Your task to perform on an android device: Open the map Image 0: 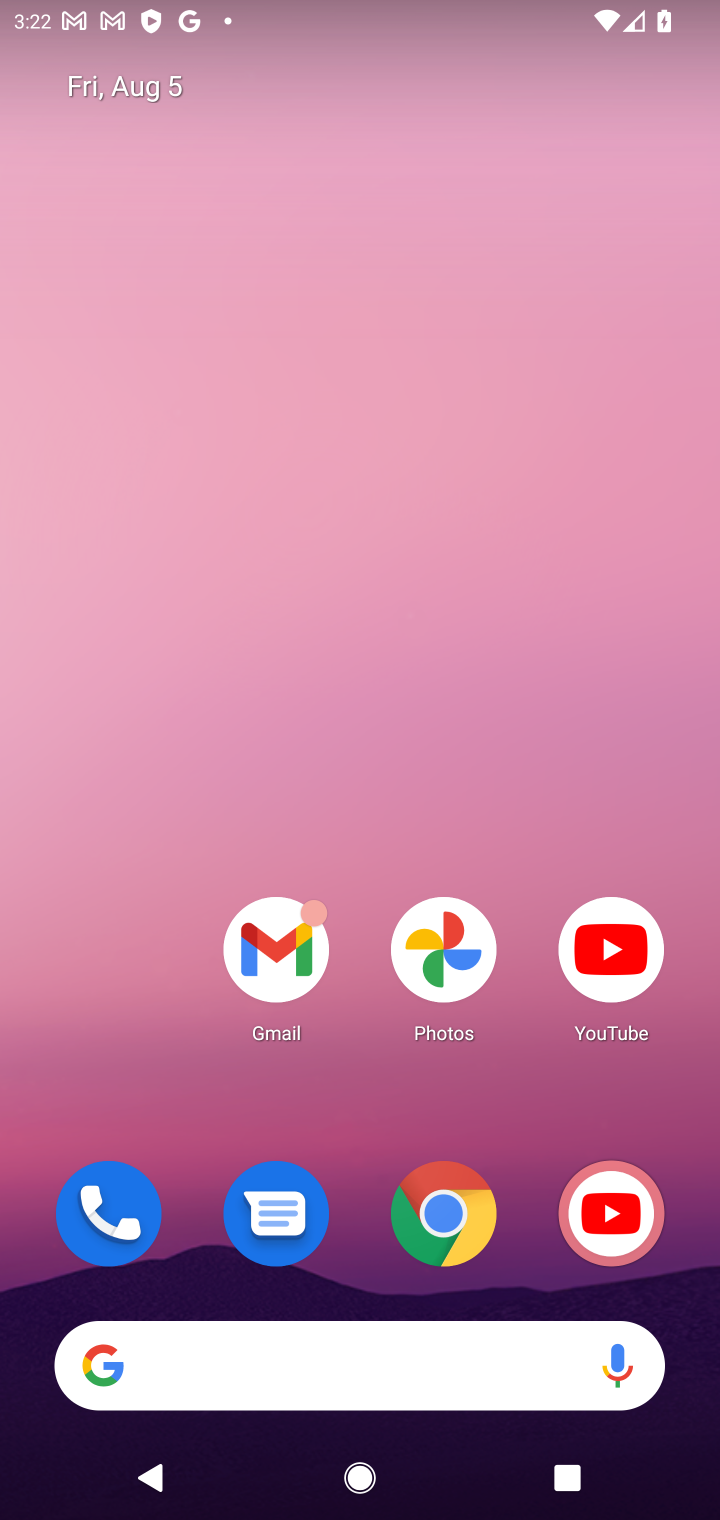
Step 0: drag from (517, 1258) to (537, 30)
Your task to perform on an android device: Open the map Image 1: 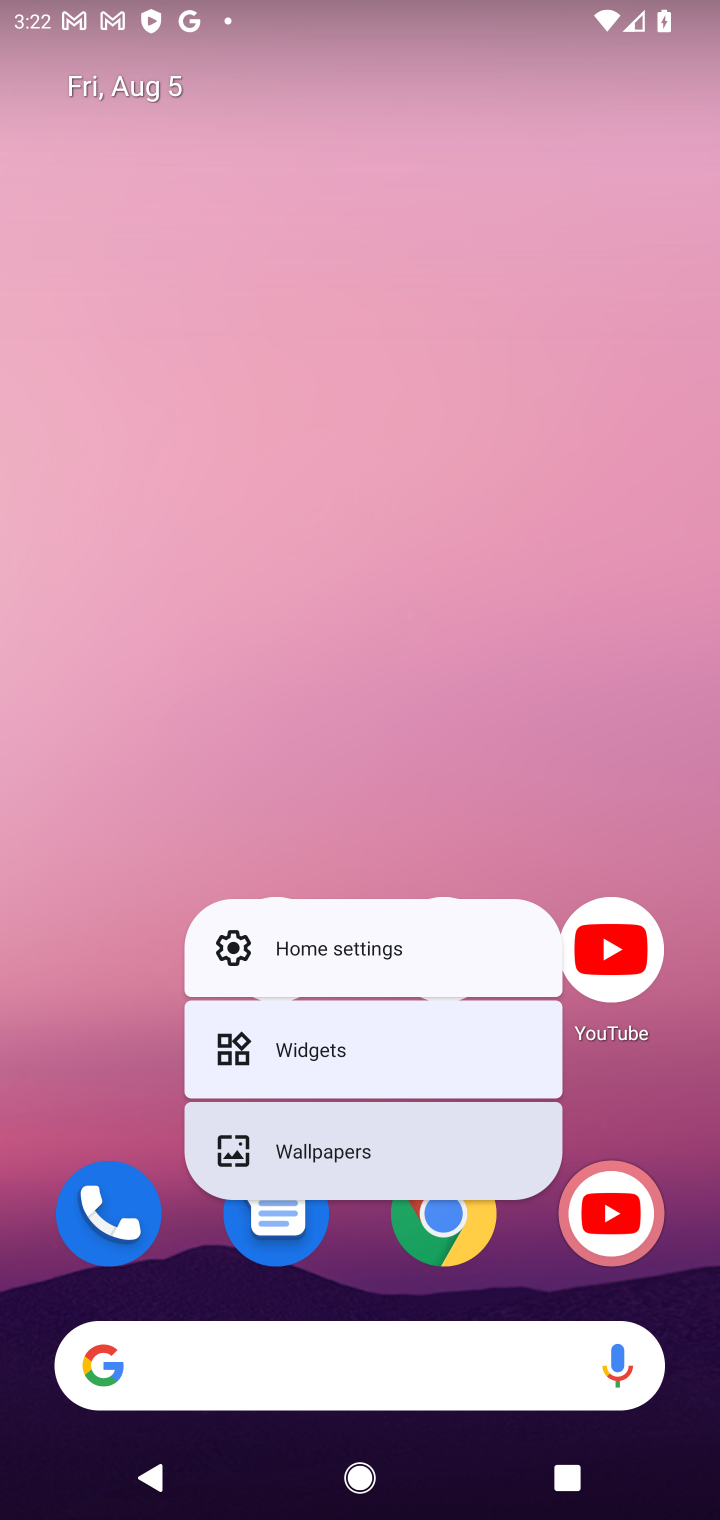
Step 1: click (472, 466)
Your task to perform on an android device: Open the map Image 2: 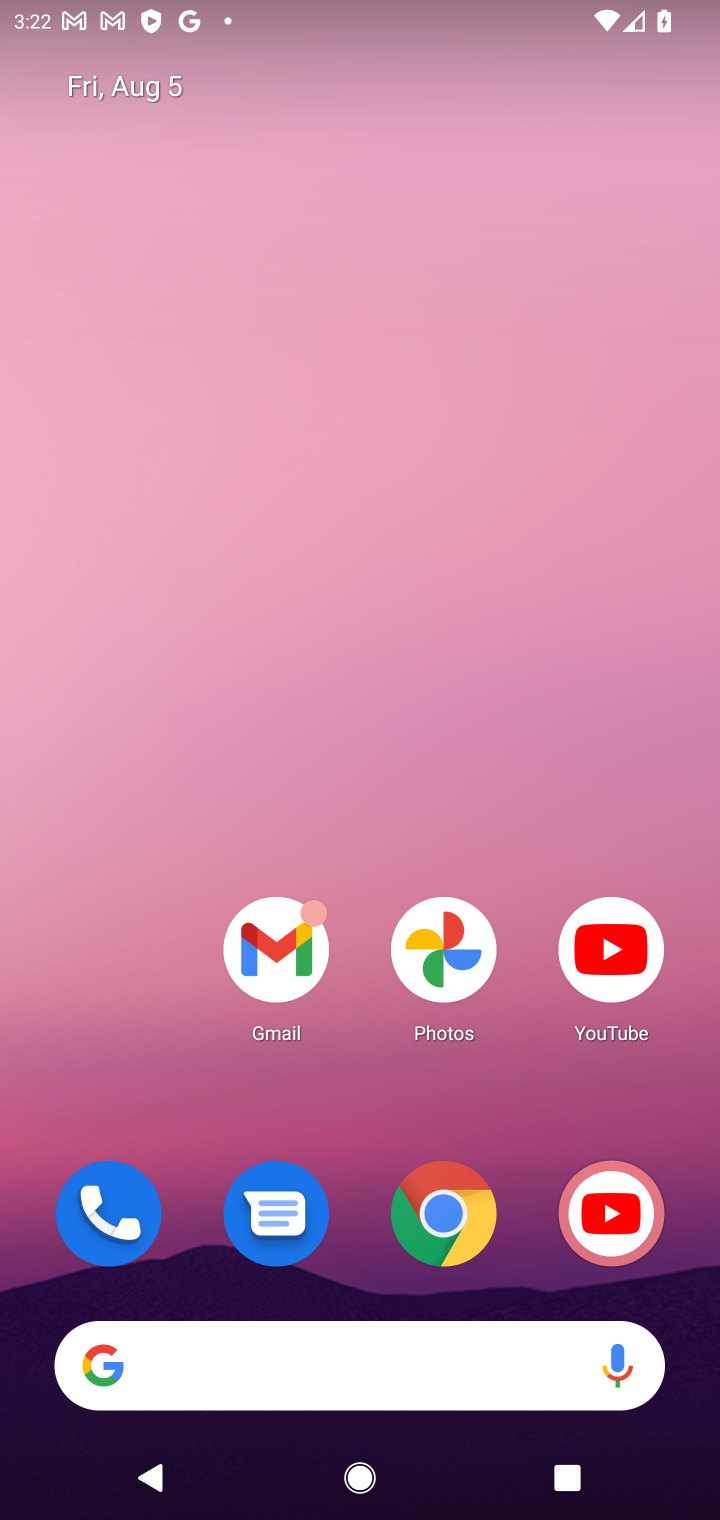
Step 2: drag from (526, 1279) to (499, 311)
Your task to perform on an android device: Open the map Image 3: 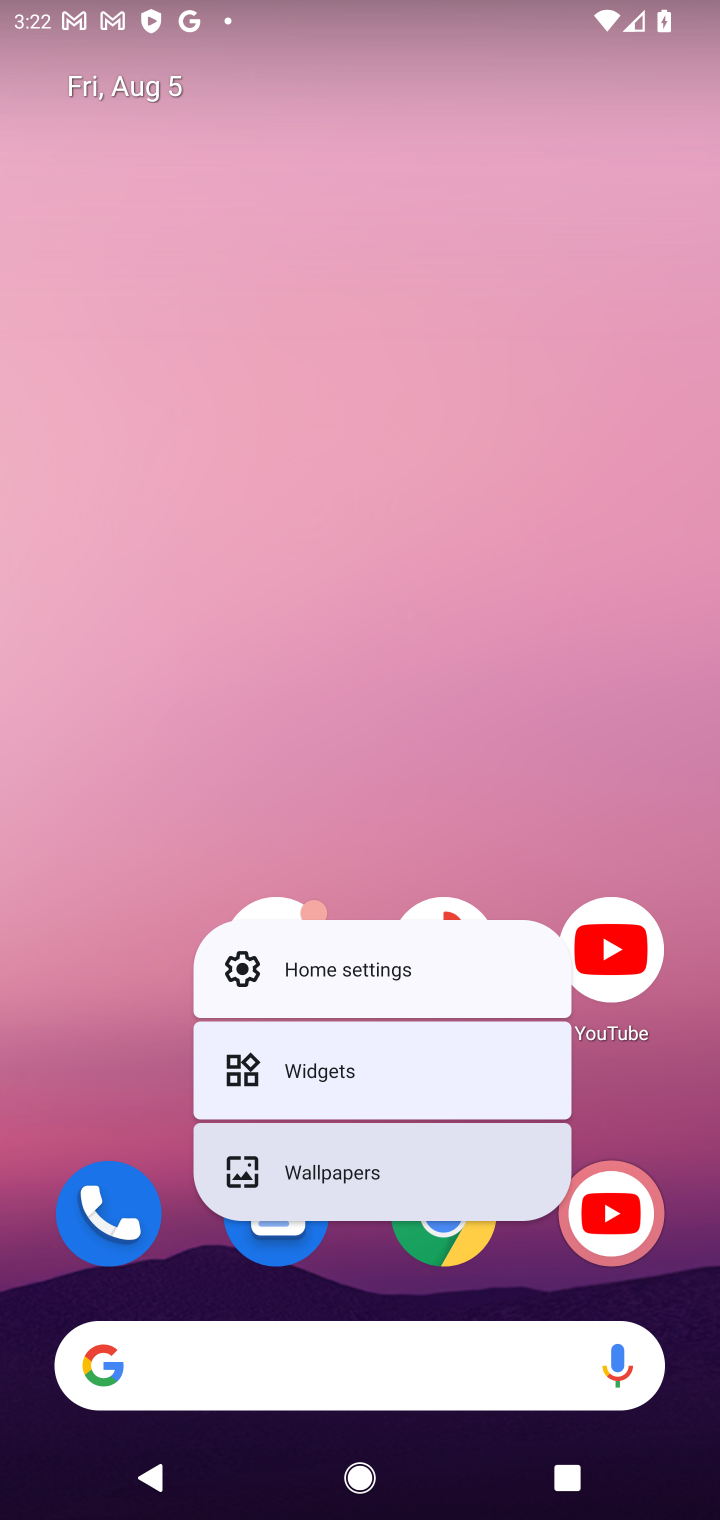
Step 3: click (499, 311)
Your task to perform on an android device: Open the map Image 4: 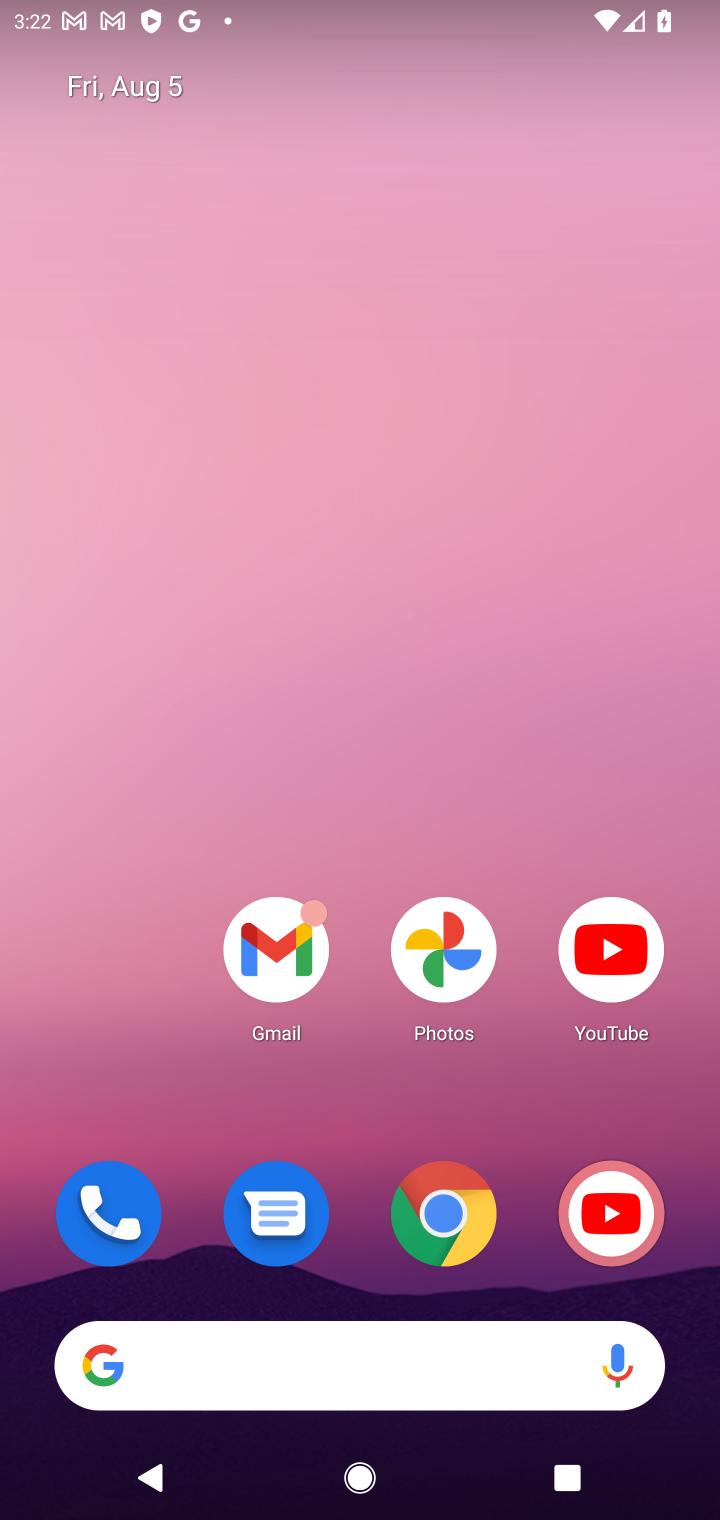
Step 4: drag from (349, 1312) to (322, 383)
Your task to perform on an android device: Open the map Image 5: 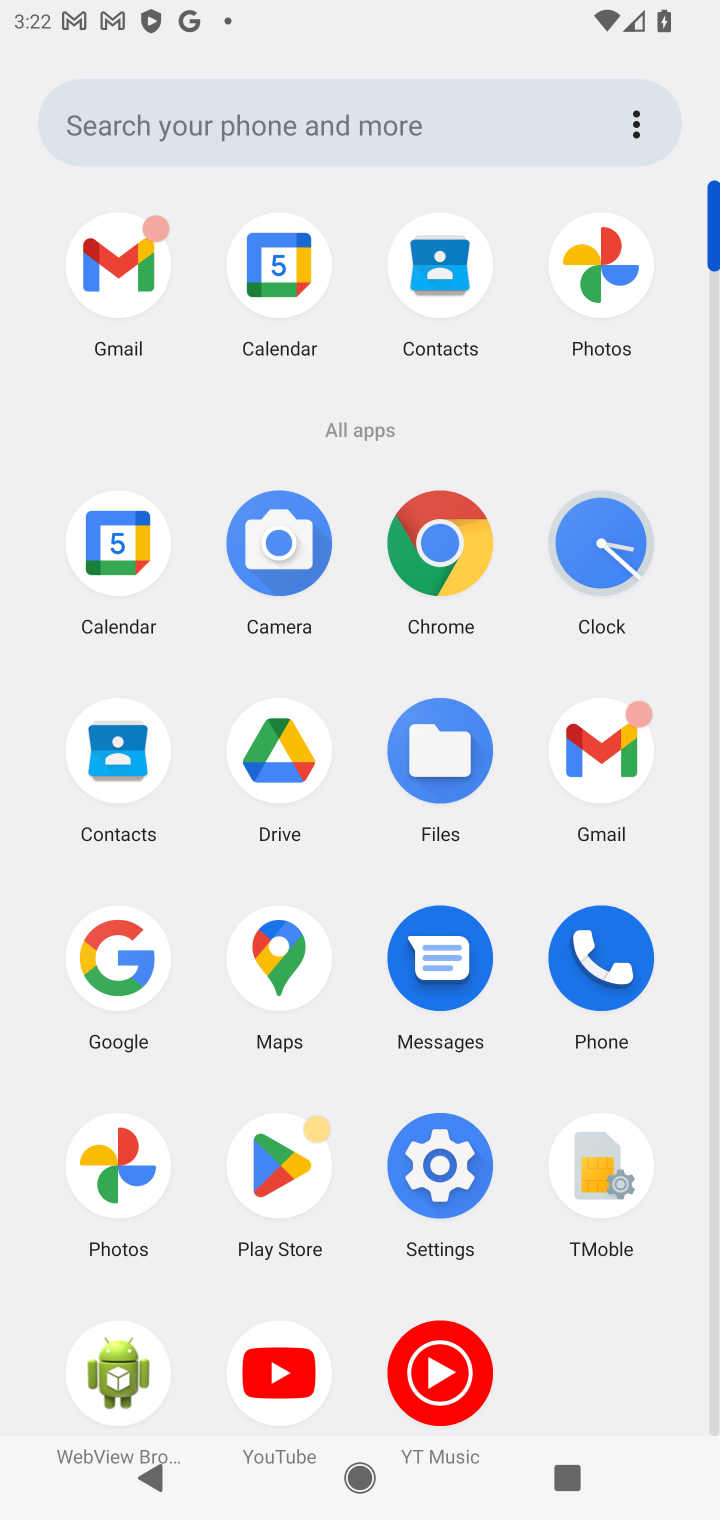
Step 5: click (292, 982)
Your task to perform on an android device: Open the map Image 6: 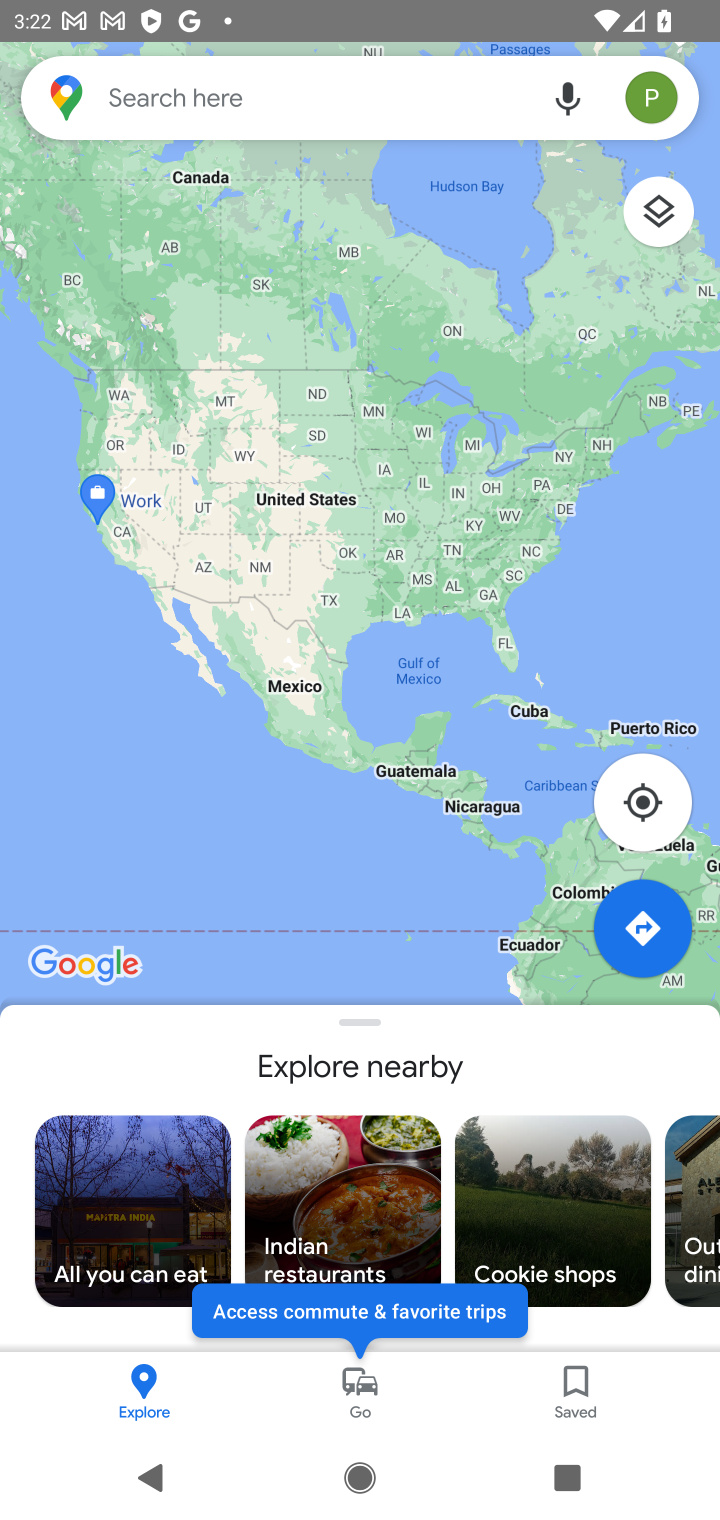
Step 6: task complete